Your task to perform on an android device: see sites visited before in the chrome app Image 0: 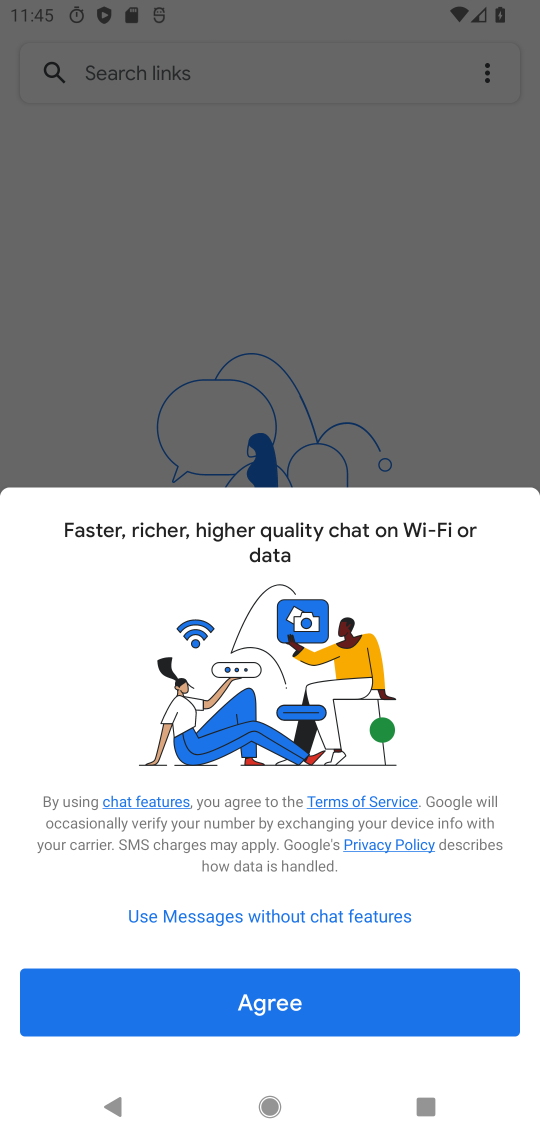
Step 0: press home button
Your task to perform on an android device: see sites visited before in the chrome app Image 1: 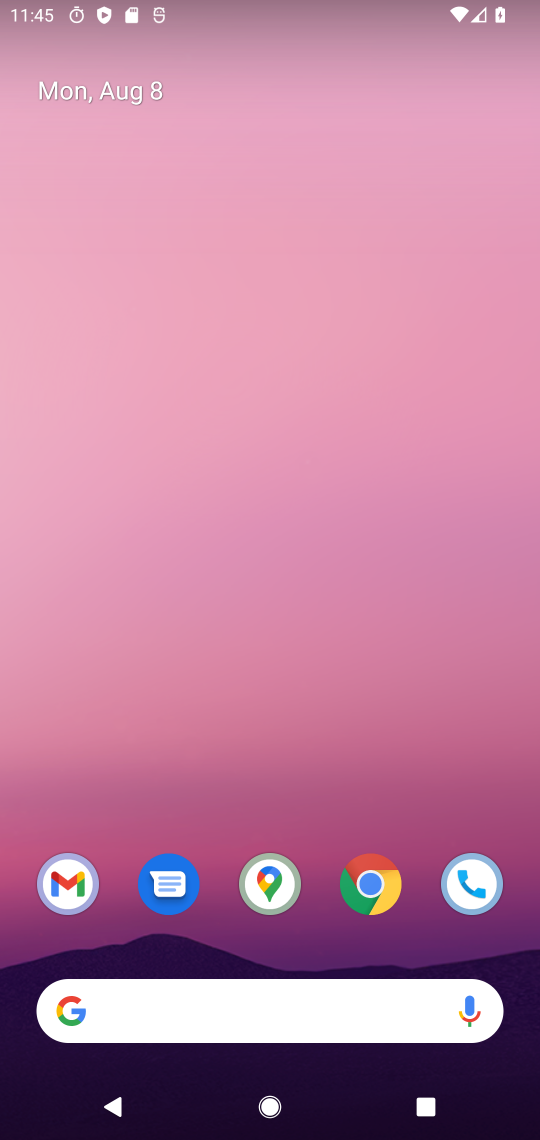
Step 1: click (373, 880)
Your task to perform on an android device: see sites visited before in the chrome app Image 2: 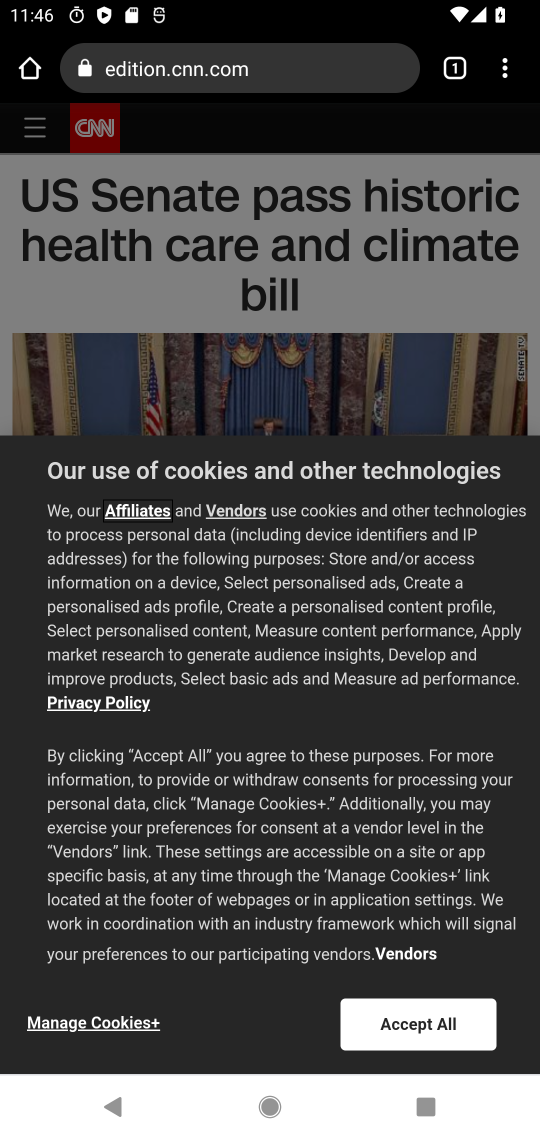
Step 2: click (508, 74)
Your task to perform on an android device: see sites visited before in the chrome app Image 3: 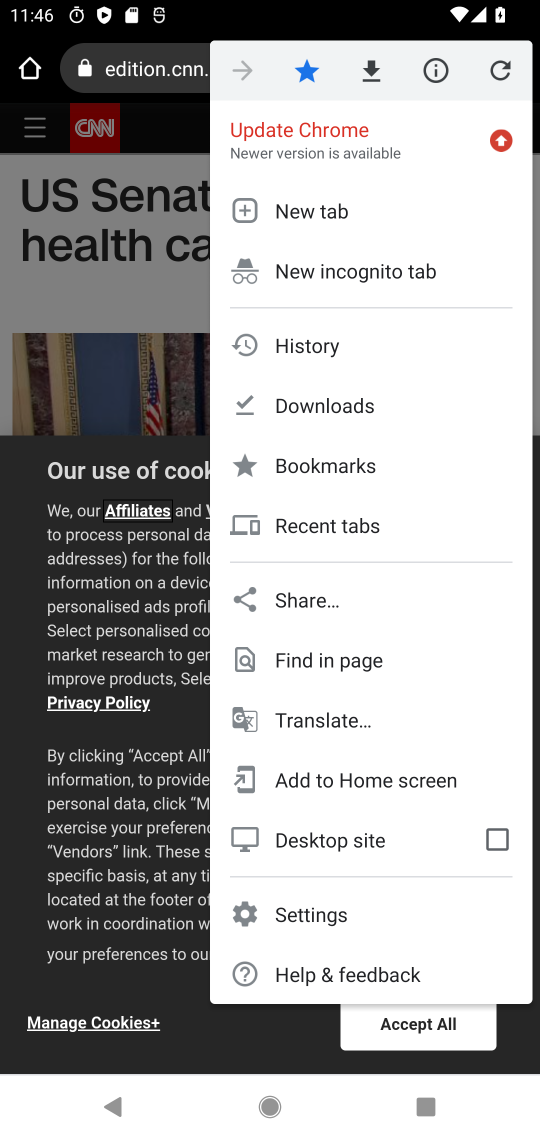
Step 3: click (294, 345)
Your task to perform on an android device: see sites visited before in the chrome app Image 4: 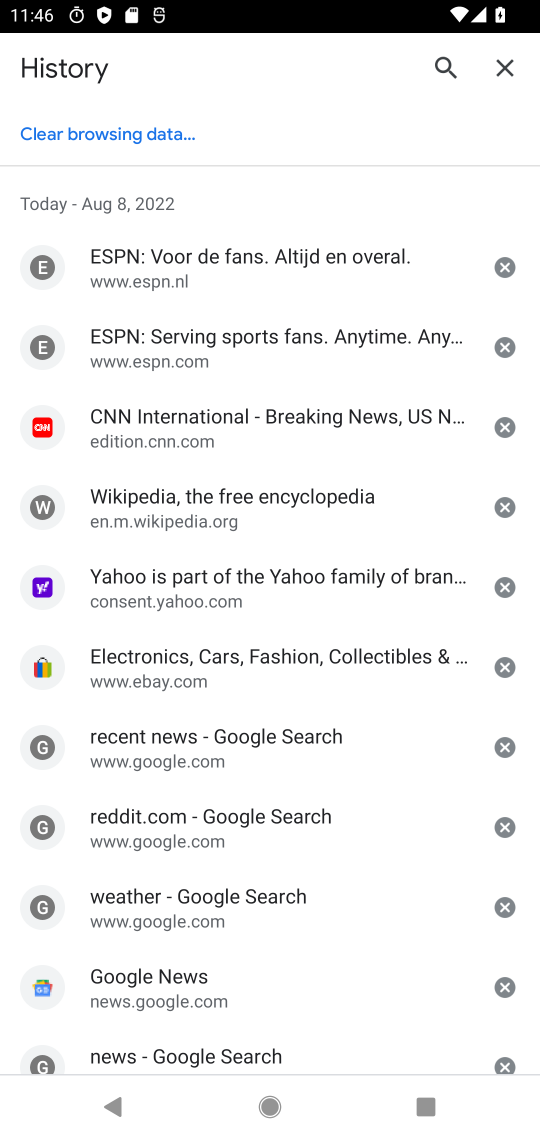
Step 4: task complete